Your task to perform on an android device: set an alarm Image 0: 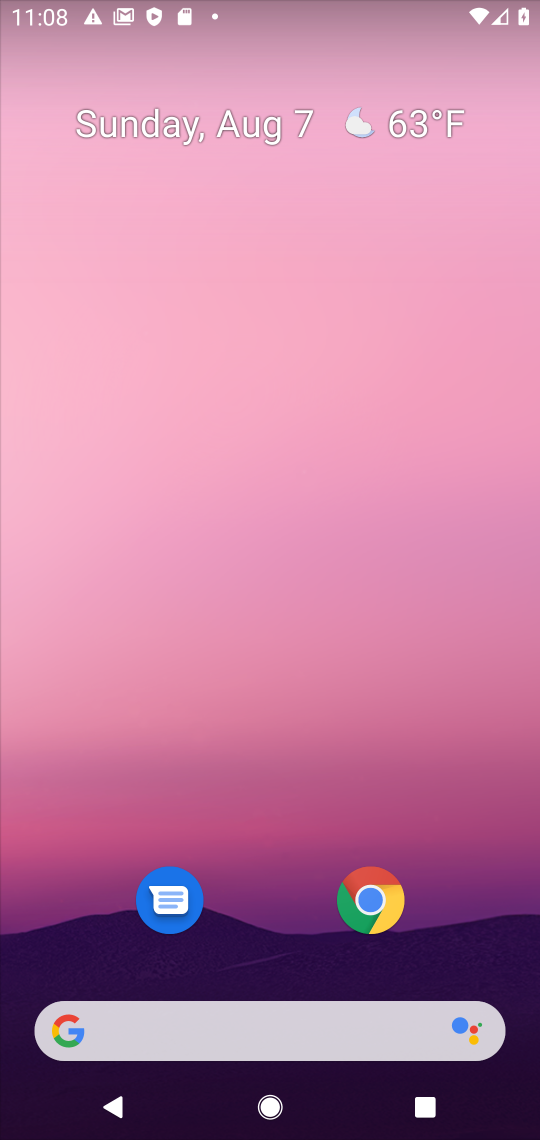
Step 0: press home button
Your task to perform on an android device: set an alarm Image 1: 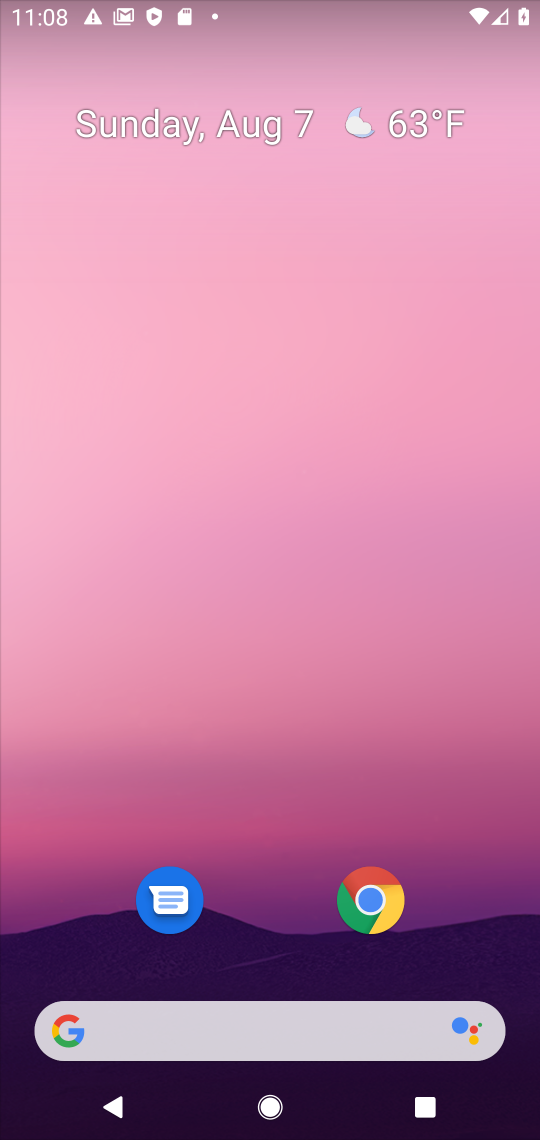
Step 1: drag from (277, 953) to (289, 32)
Your task to perform on an android device: set an alarm Image 2: 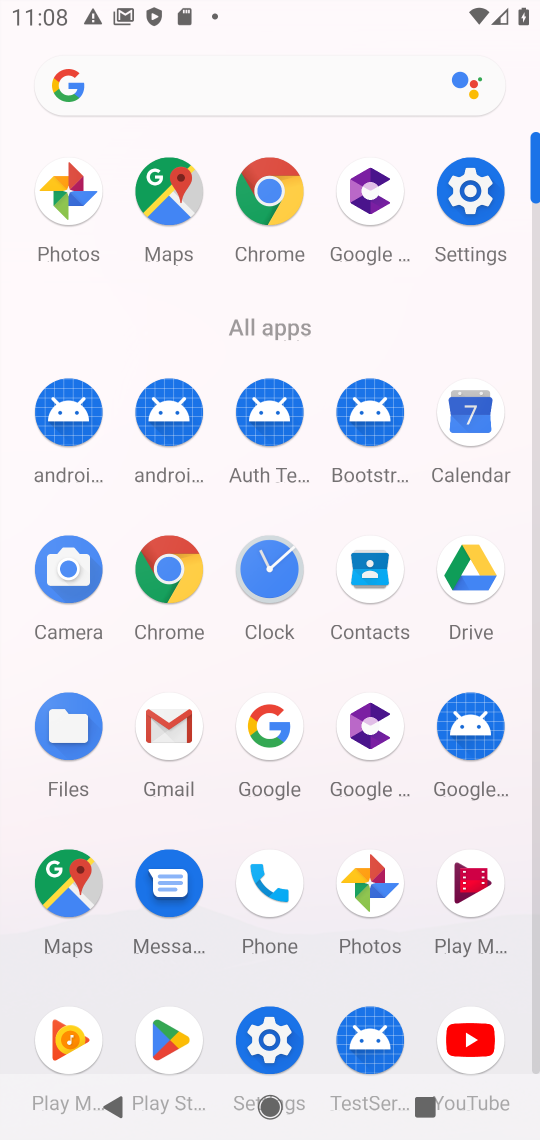
Step 2: click (262, 560)
Your task to perform on an android device: set an alarm Image 3: 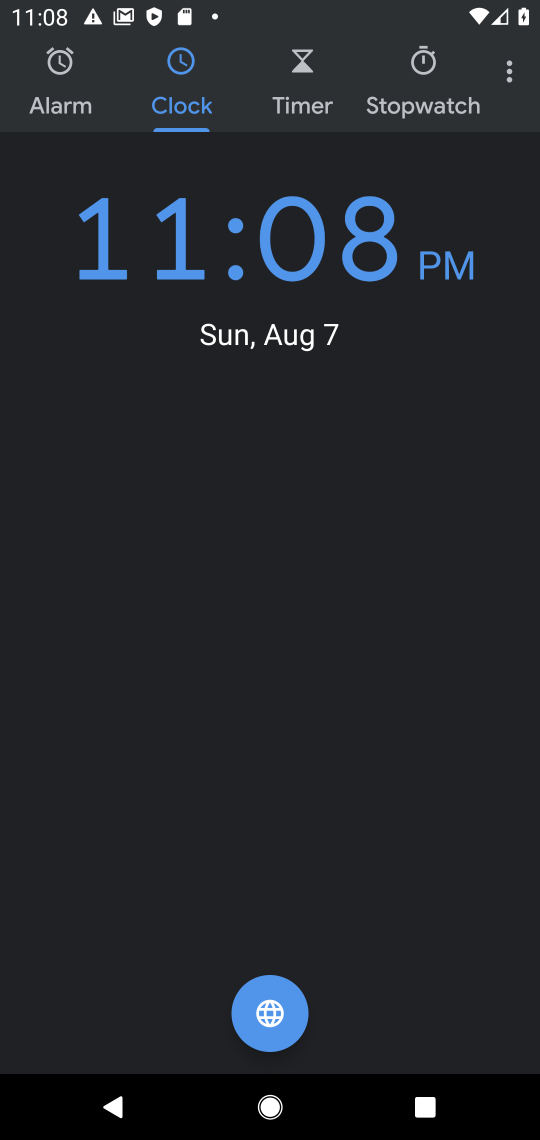
Step 3: click (59, 61)
Your task to perform on an android device: set an alarm Image 4: 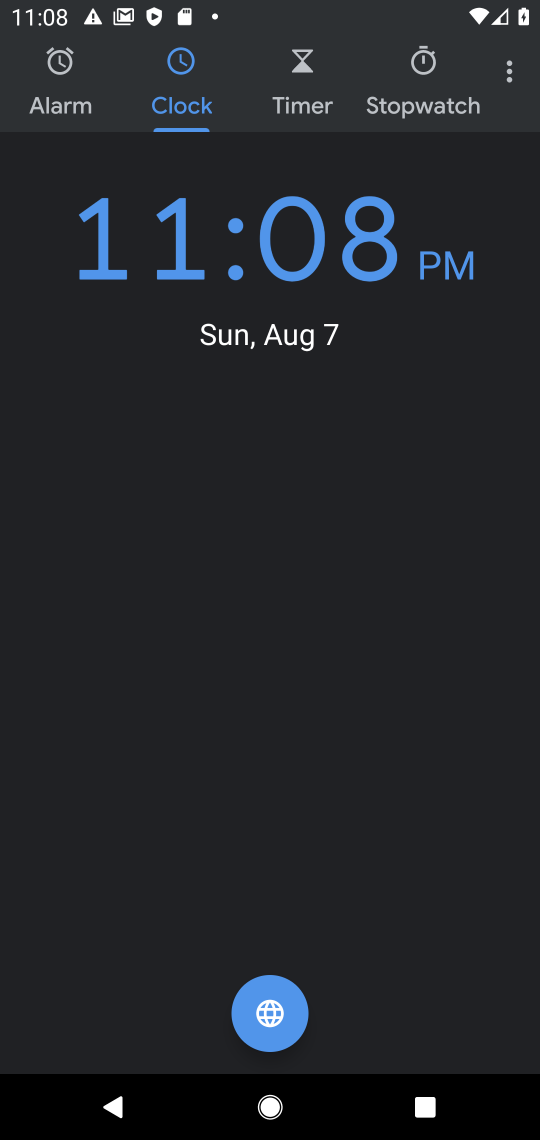
Step 4: click (40, 78)
Your task to perform on an android device: set an alarm Image 5: 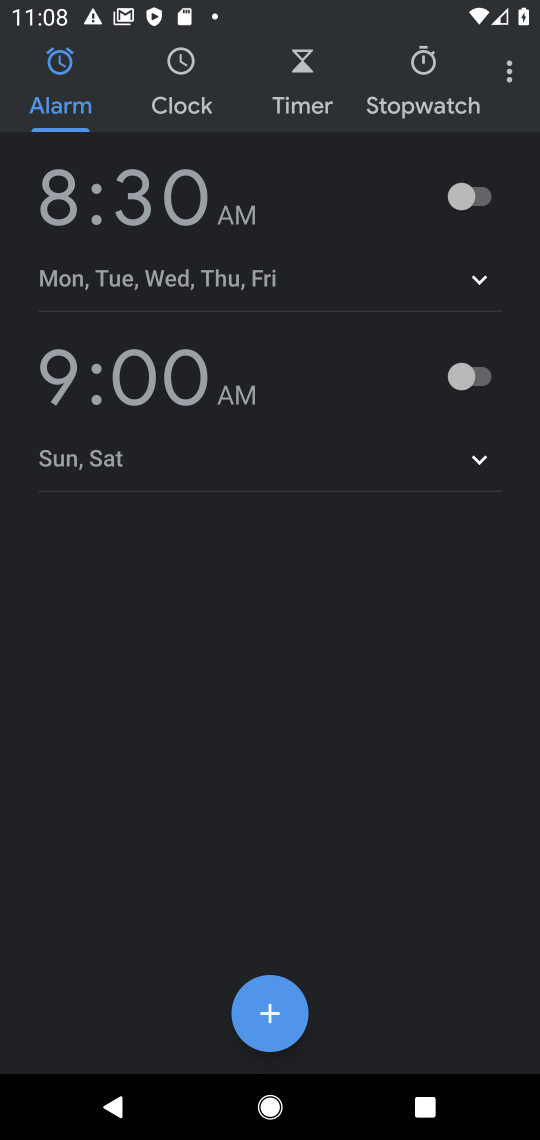
Step 5: click (482, 192)
Your task to perform on an android device: set an alarm Image 6: 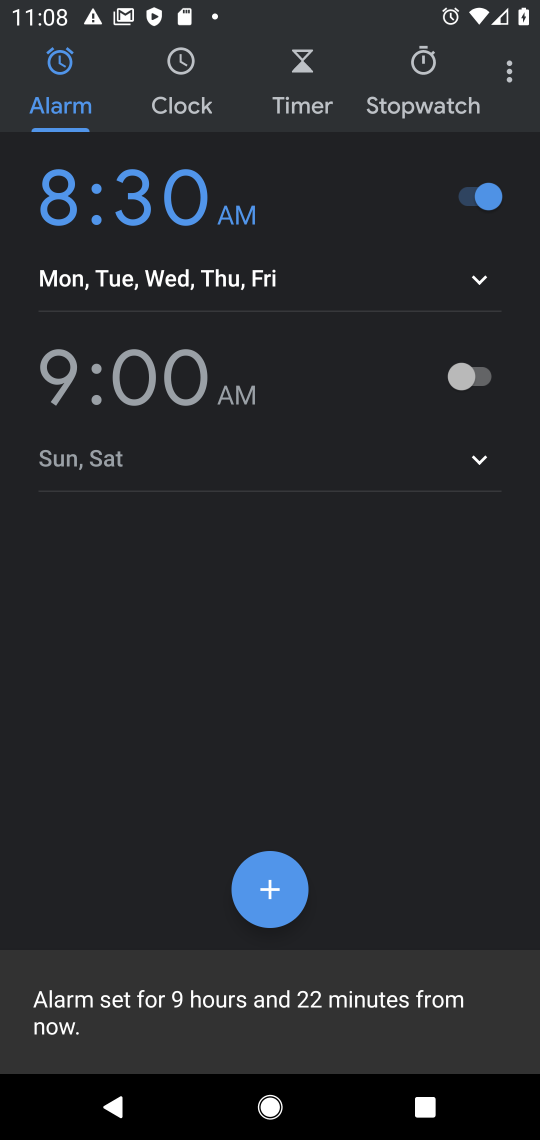
Step 6: task complete